Your task to perform on an android device: What's the weather going to be tomorrow? Image 0: 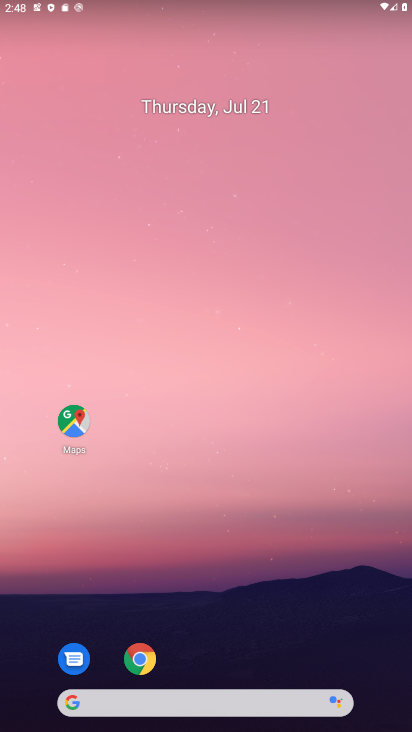
Step 0: drag from (264, 664) to (210, 166)
Your task to perform on an android device: What's the weather going to be tomorrow? Image 1: 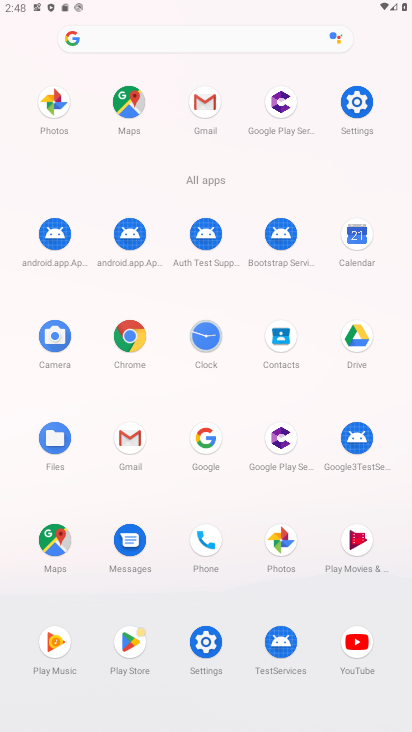
Step 1: click (129, 345)
Your task to perform on an android device: What's the weather going to be tomorrow? Image 2: 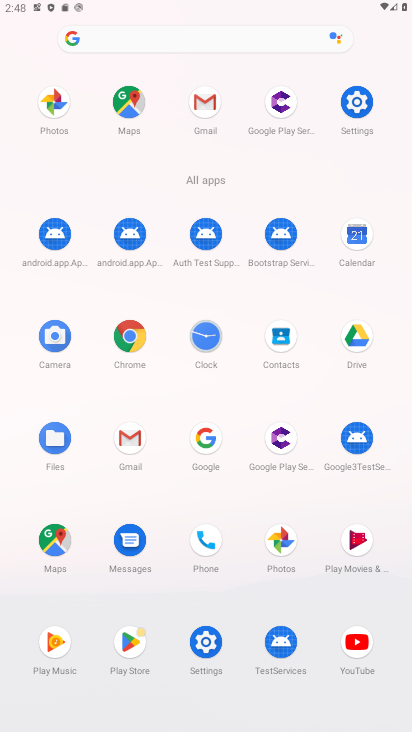
Step 2: click (129, 345)
Your task to perform on an android device: What's the weather going to be tomorrow? Image 3: 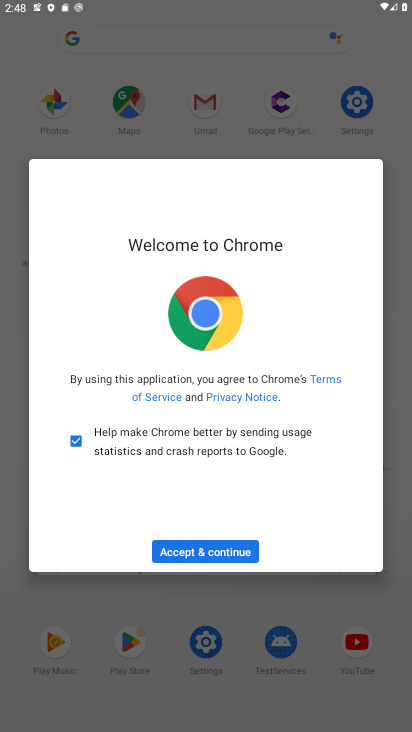
Step 3: click (220, 555)
Your task to perform on an android device: What's the weather going to be tomorrow? Image 4: 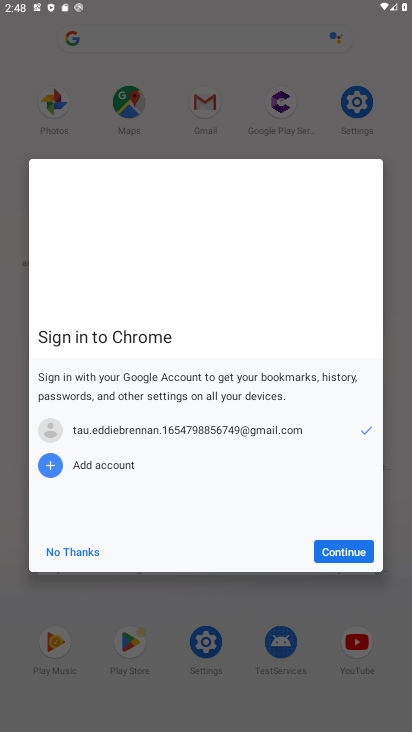
Step 4: click (348, 553)
Your task to perform on an android device: What's the weather going to be tomorrow? Image 5: 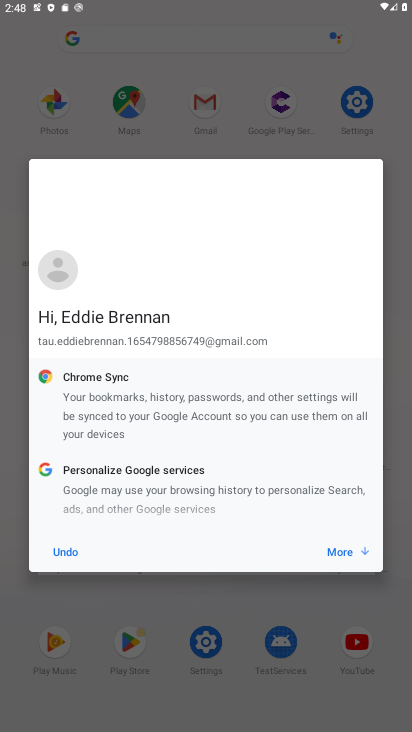
Step 5: click (348, 553)
Your task to perform on an android device: What's the weather going to be tomorrow? Image 6: 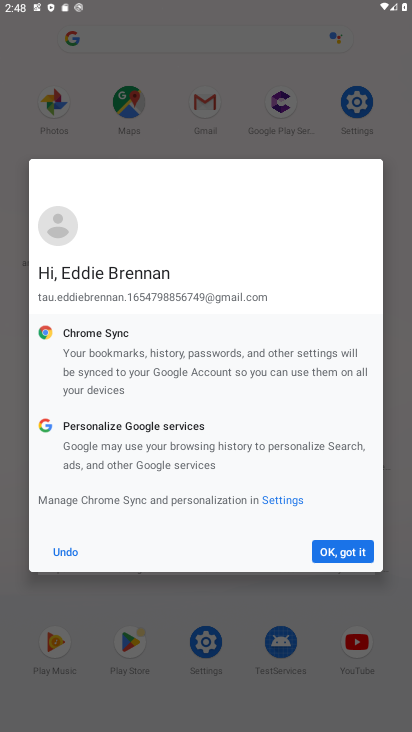
Step 6: click (348, 553)
Your task to perform on an android device: What's the weather going to be tomorrow? Image 7: 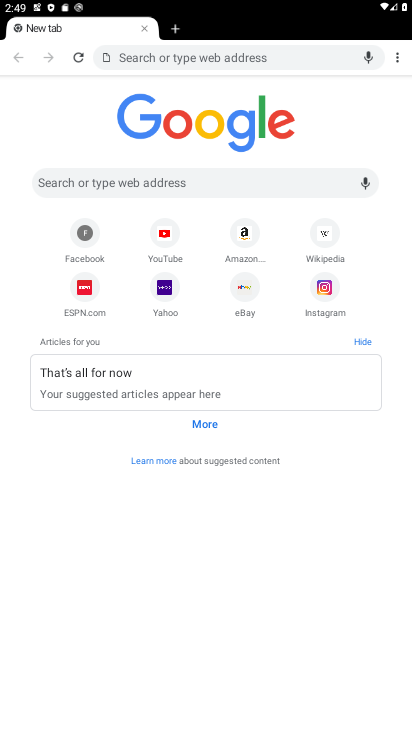
Step 7: type "What's the weather going to be tomorrow?"
Your task to perform on an android device: What's the weather going to be tomorrow? Image 8: 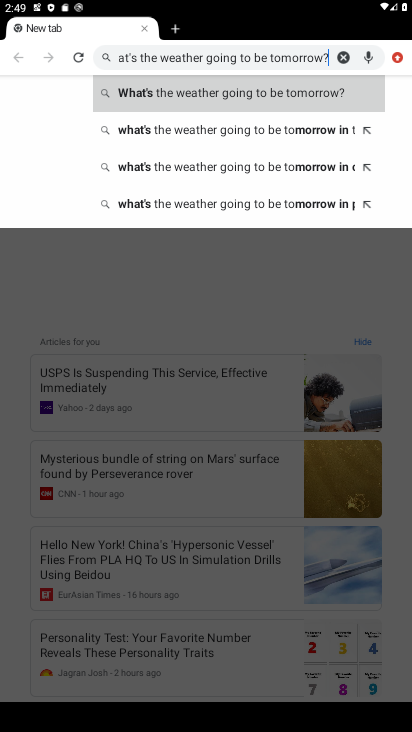
Step 8: click (281, 94)
Your task to perform on an android device: What's the weather going to be tomorrow? Image 9: 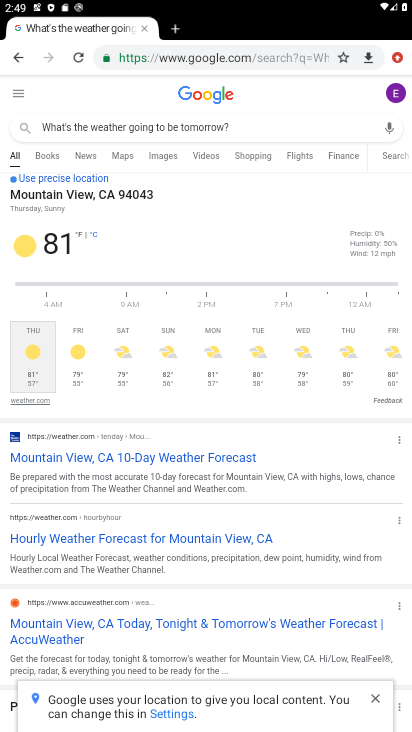
Step 9: task complete